Your task to perform on an android device: Open eBay Image 0: 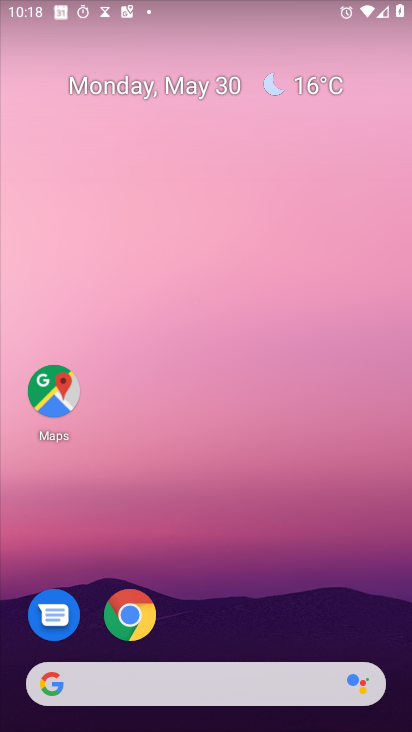
Step 0: drag from (254, 628) to (259, 207)
Your task to perform on an android device: Open eBay Image 1: 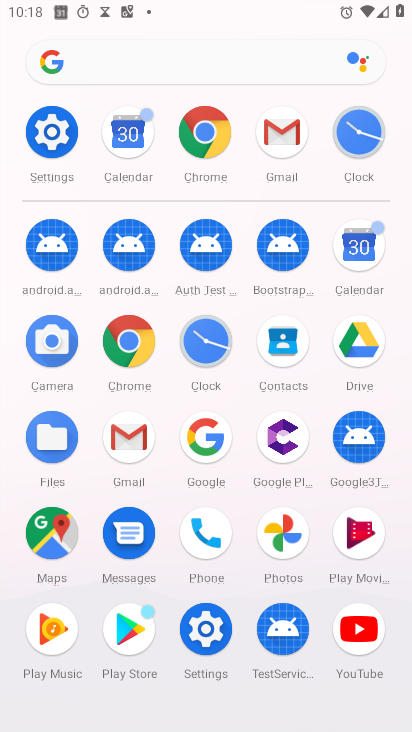
Step 1: click (214, 154)
Your task to perform on an android device: Open eBay Image 2: 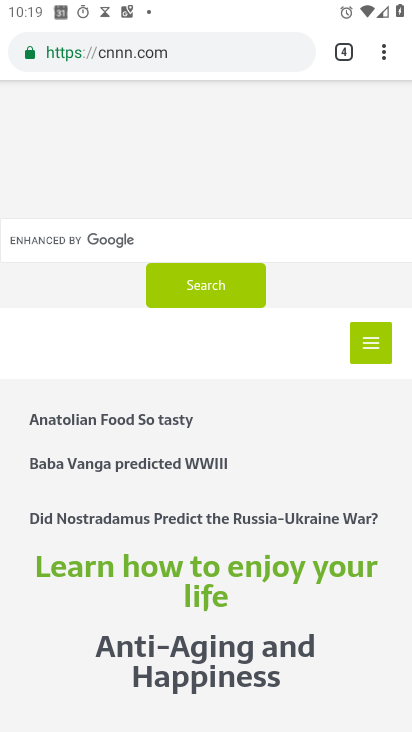
Step 2: click (189, 43)
Your task to perform on an android device: Open eBay Image 3: 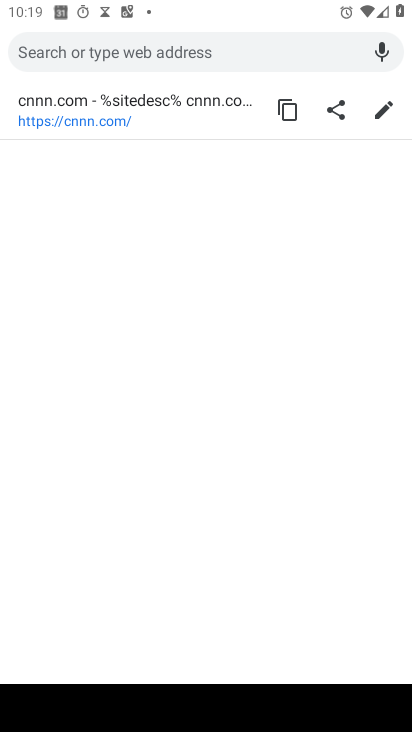
Step 3: type "ebay"
Your task to perform on an android device: Open eBay Image 4: 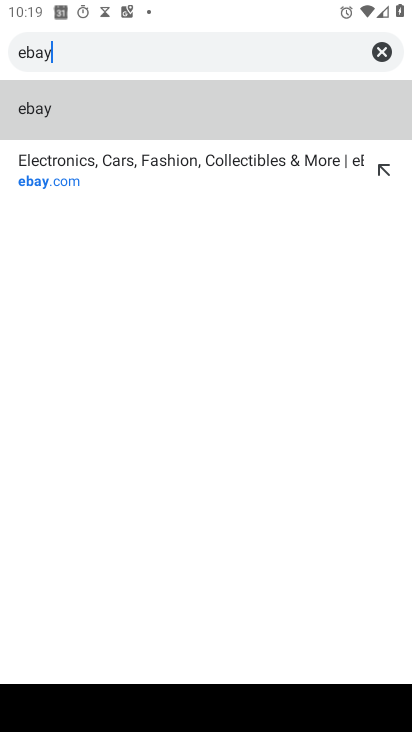
Step 4: click (108, 166)
Your task to perform on an android device: Open eBay Image 5: 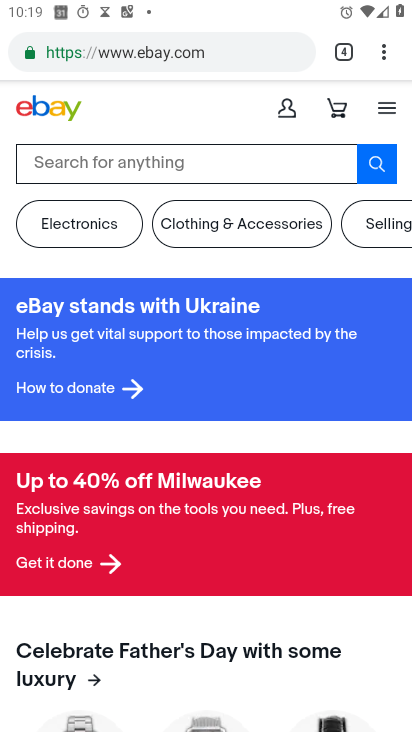
Step 5: task complete